Your task to perform on an android device: make emails show in primary in the gmail app Image 0: 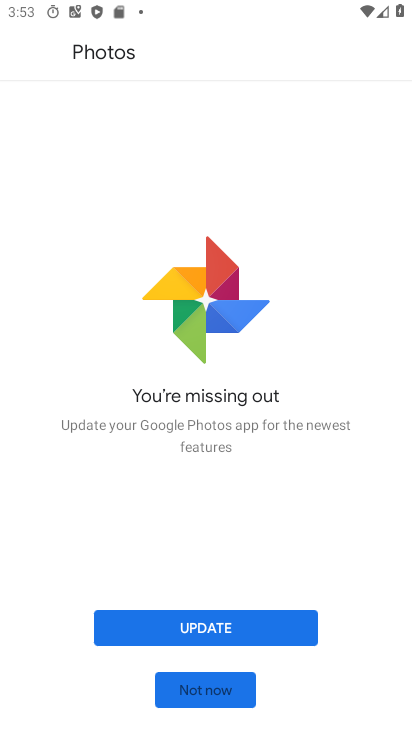
Step 0: press home button
Your task to perform on an android device: make emails show in primary in the gmail app Image 1: 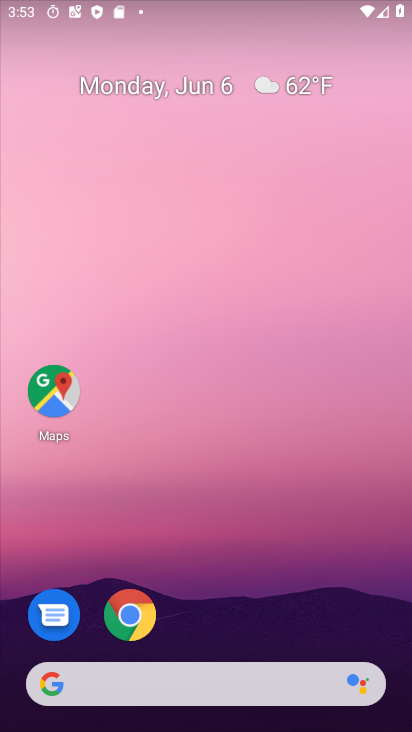
Step 1: drag from (370, 643) to (375, 42)
Your task to perform on an android device: make emails show in primary in the gmail app Image 2: 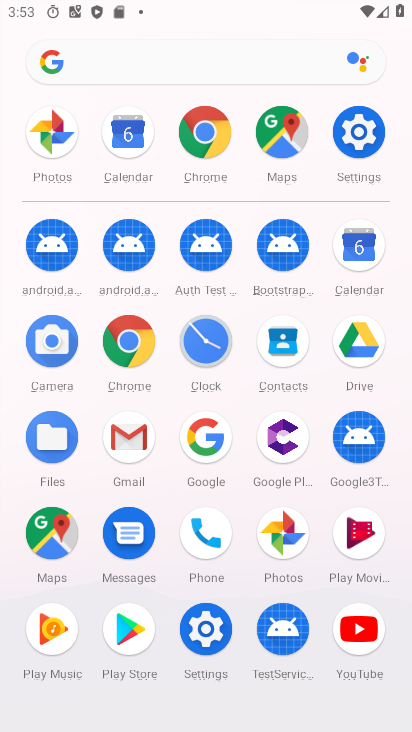
Step 2: click (137, 448)
Your task to perform on an android device: make emails show in primary in the gmail app Image 3: 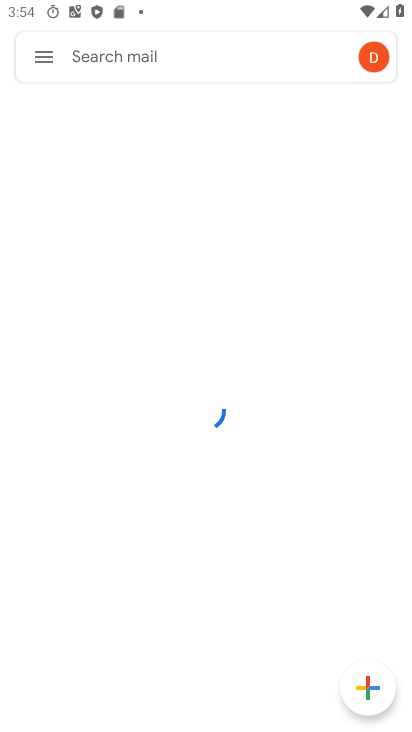
Step 3: click (45, 63)
Your task to perform on an android device: make emails show in primary in the gmail app Image 4: 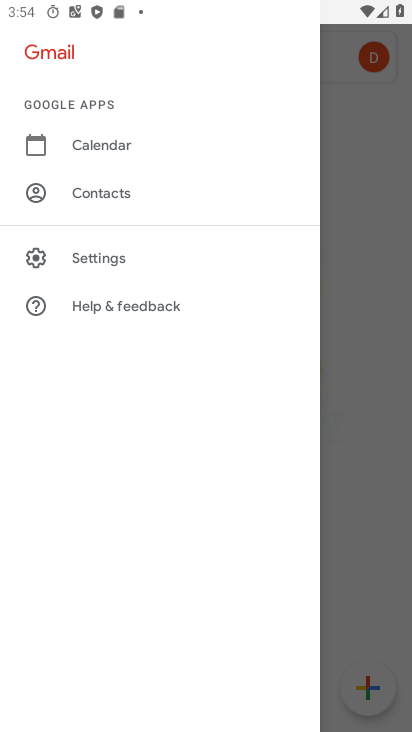
Step 4: click (133, 259)
Your task to perform on an android device: make emails show in primary in the gmail app Image 5: 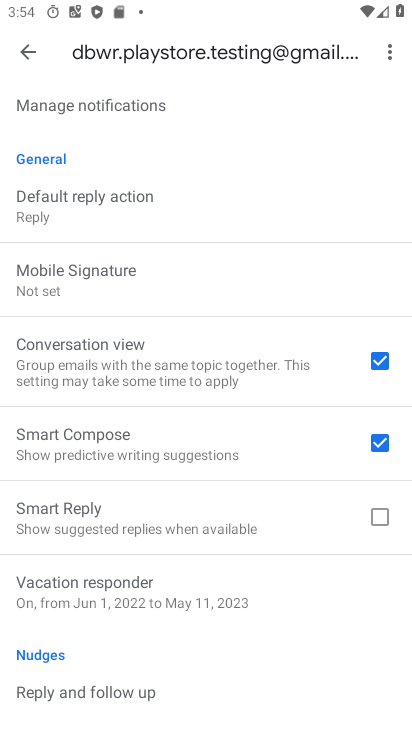
Step 5: drag from (190, 385) to (194, 656)
Your task to perform on an android device: make emails show in primary in the gmail app Image 6: 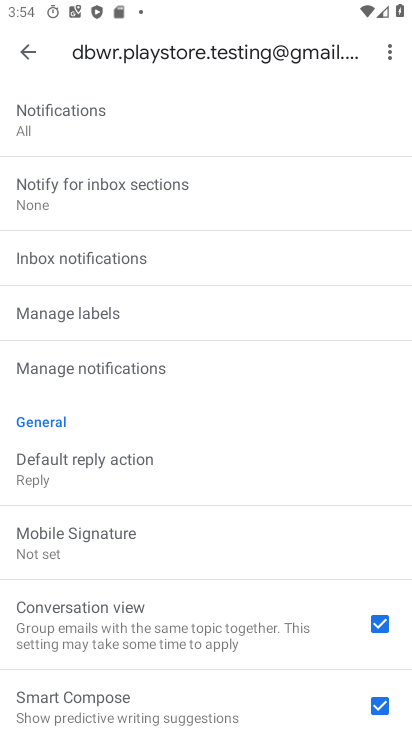
Step 6: drag from (177, 183) to (184, 702)
Your task to perform on an android device: make emails show in primary in the gmail app Image 7: 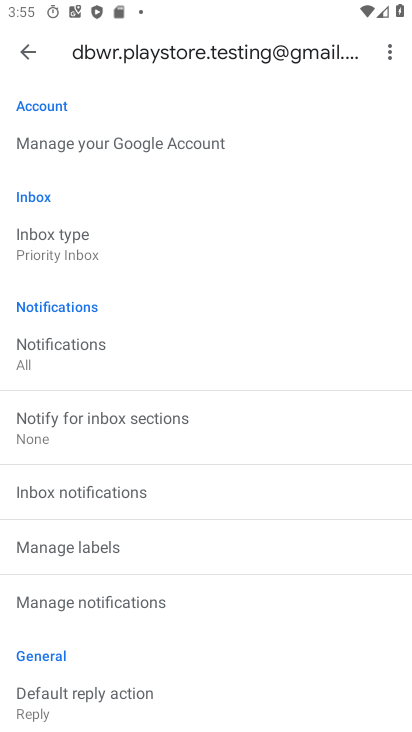
Step 7: click (55, 245)
Your task to perform on an android device: make emails show in primary in the gmail app Image 8: 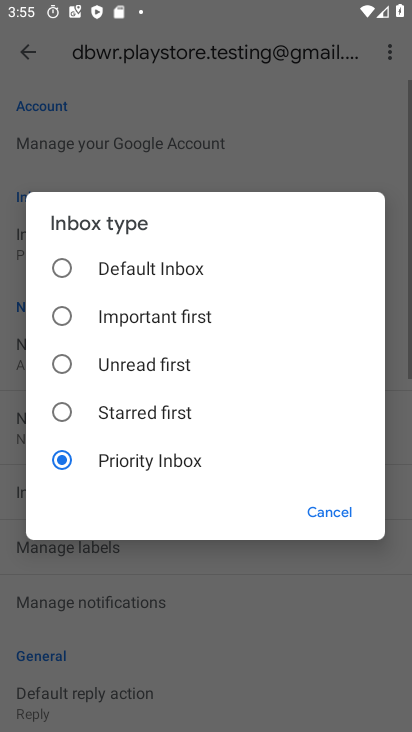
Step 8: click (75, 261)
Your task to perform on an android device: make emails show in primary in the gmail app Image 9: 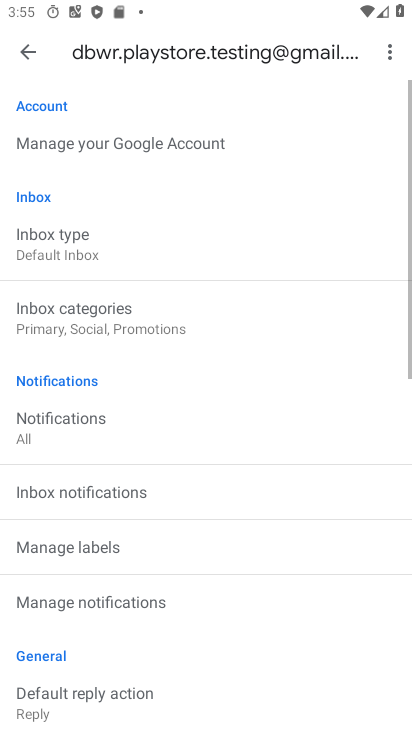
Step 9: task complete